Your task to perform on an android device: toggle pop-ups in chrome Image 0: 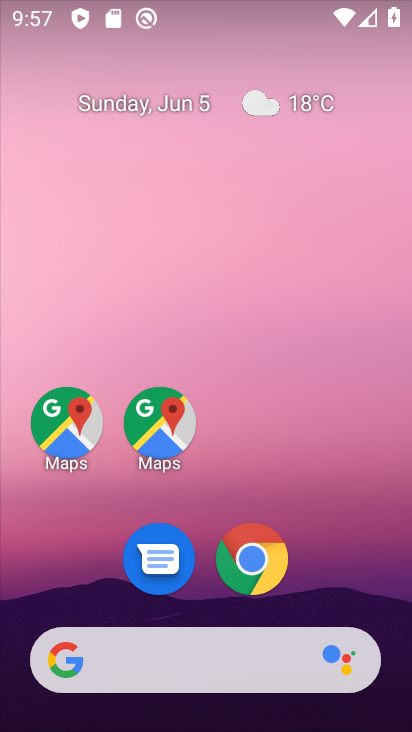
Step 0: drag from (308, 585) to (333, 76)
Your task to perform on an android device: toggle pop-ups in chrome Image 1: 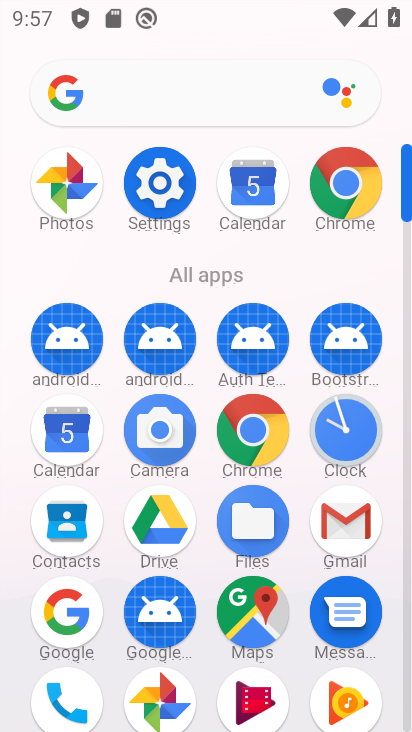
Step 1: click (223, 434)
Your task to perform on an android device: toggle pop-ups in chrome Image 2: 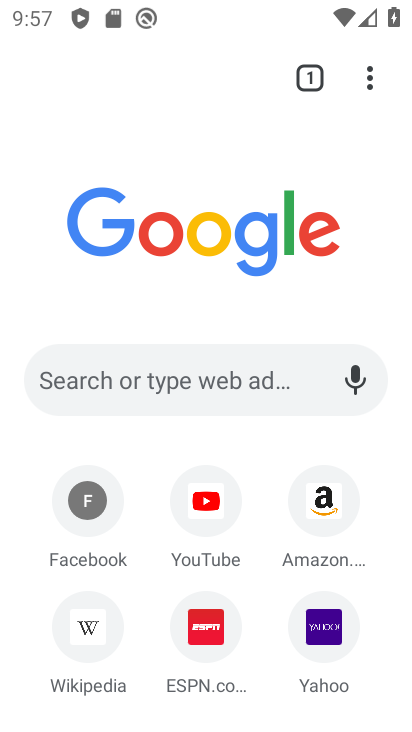
Step 2: drag from (371, 82) to (161, 603)
Your task to perform on an android device: toggle pop-ups in chrome Image 3: 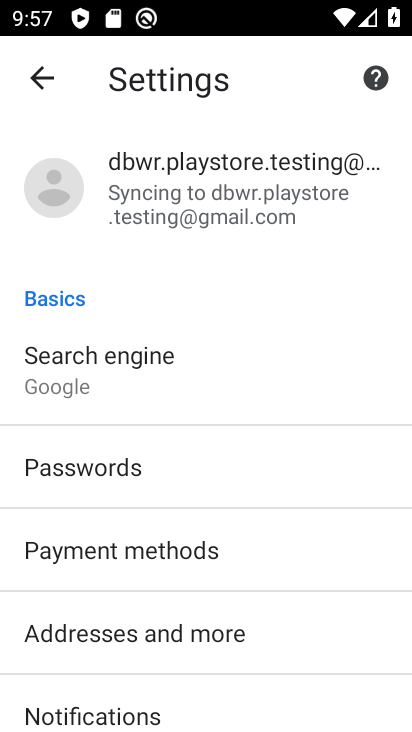
Step 3: drag from (230, 697) to (253, 279)
Your task to perform on an android device: toggle pop-ups in chrome Image 4: 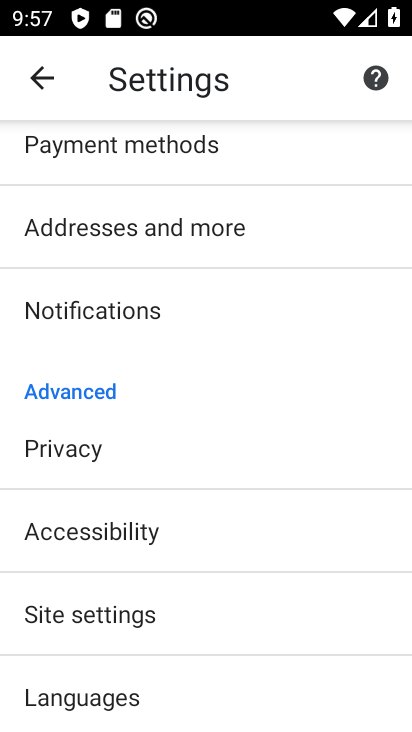
Step 4: click (139, 614)
Your task to perform on an android device: toggle pop-ups in chrome Image 5: 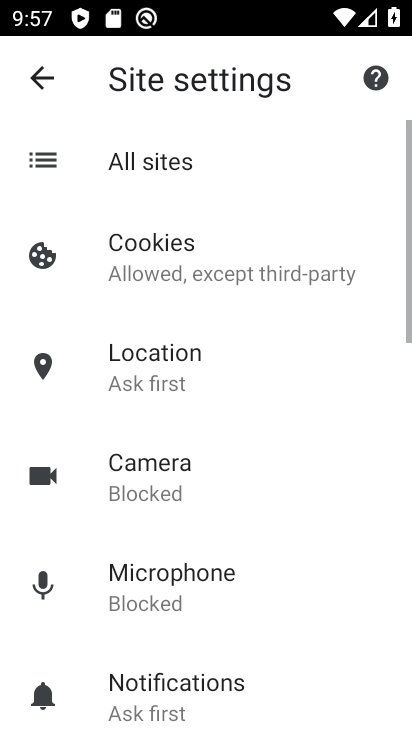
Step 5: drag from (298, 703) to (304, 355)
Your task to perform on an android device: toggle pop-ups in chrome Image 6: 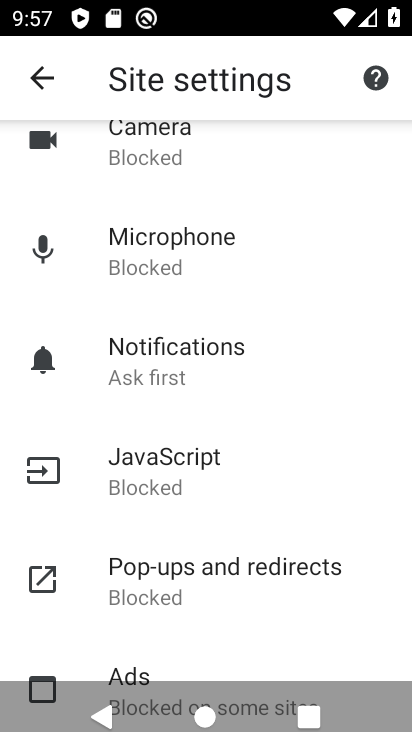
Step 6: click (166, 574)
Your task to perform on an android device: toggle pop-ups in chrome Image 7: 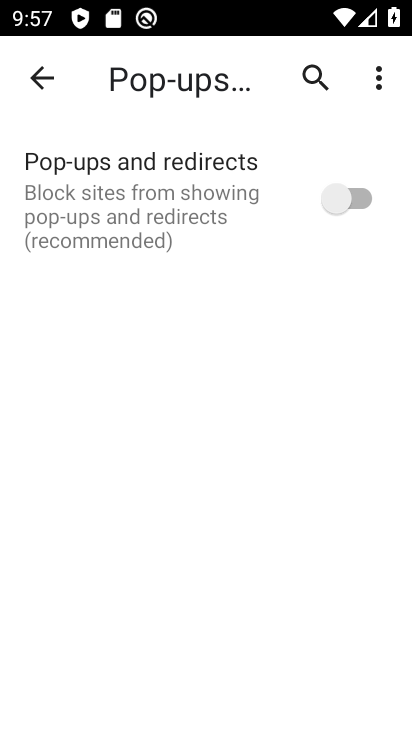
Step 7: click (342, 187)
Your task to perform on an android device: toggle pop-ups in chrome Image 8: 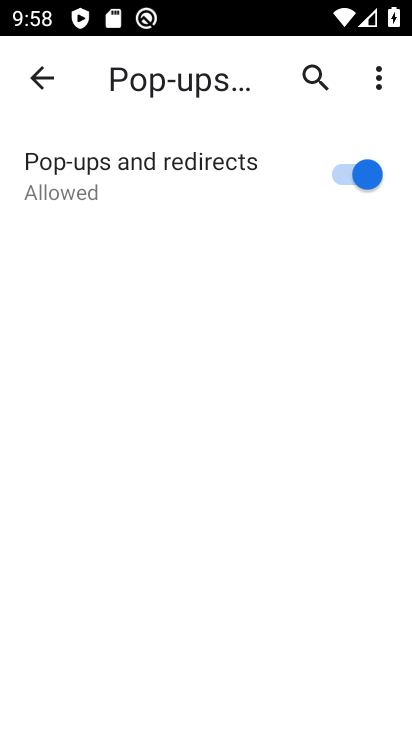
Step 8: task complete